Your task to perform on an android device: turn on notifications settings in the gmail app Image 0: 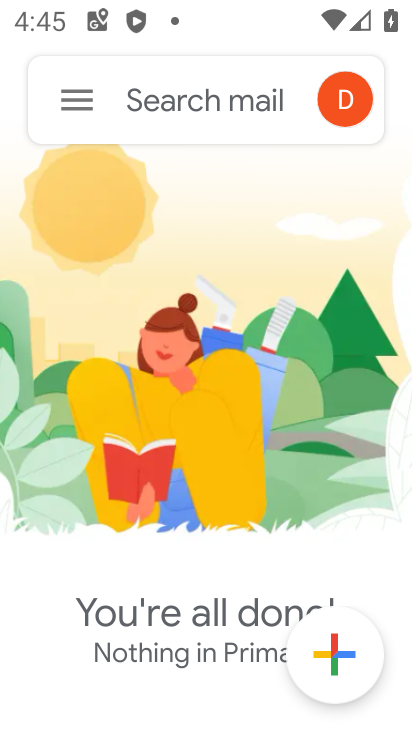
Step 0: press back button
Your task to perform on an android device: turn on notifications settings in the gmail app Image 1: 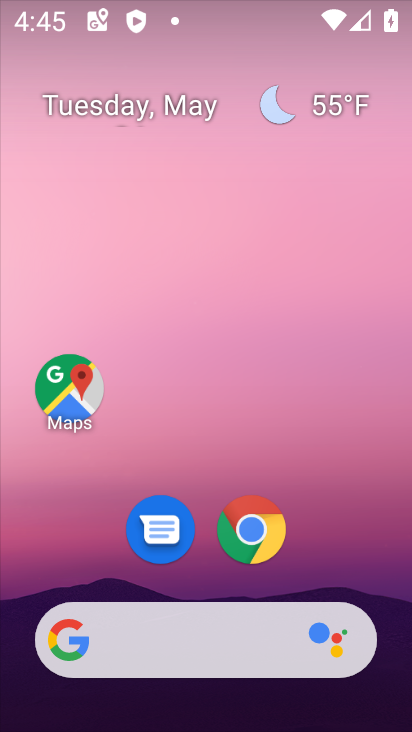
Step 1: drag from (233, 428) to (160, 0)
Your task to perform on an android device: turn on notifications settings in the gmail app Image 2: 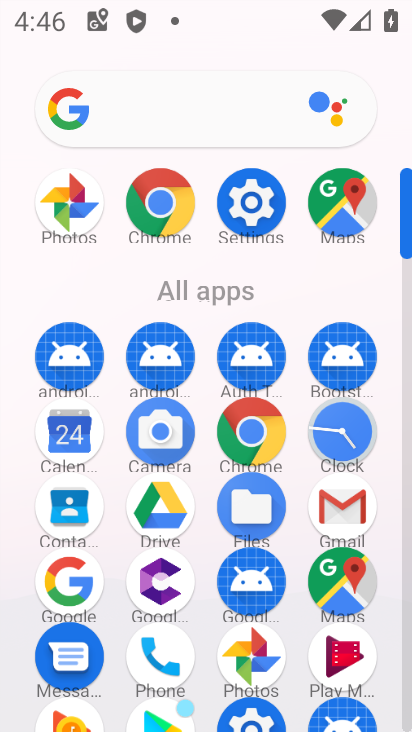
Step 2: click (339, 499)
Your task to perform on an android device: turn on notifications settings in the gmail app Image 3: 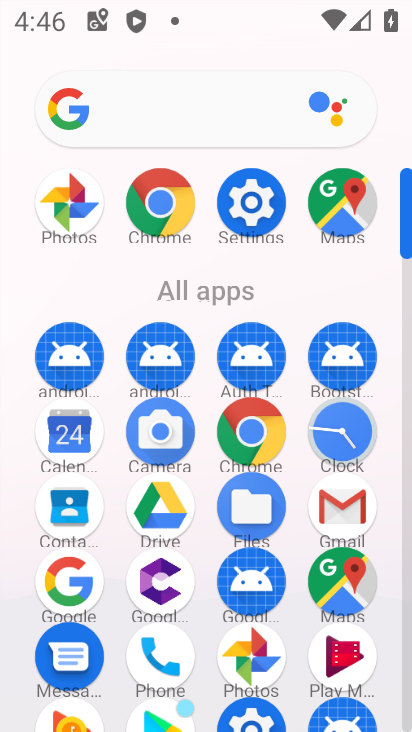
Step 3: click (337, 501)
Your task to perform on an android device: turn on notifications settings in the gmail app Image 4: 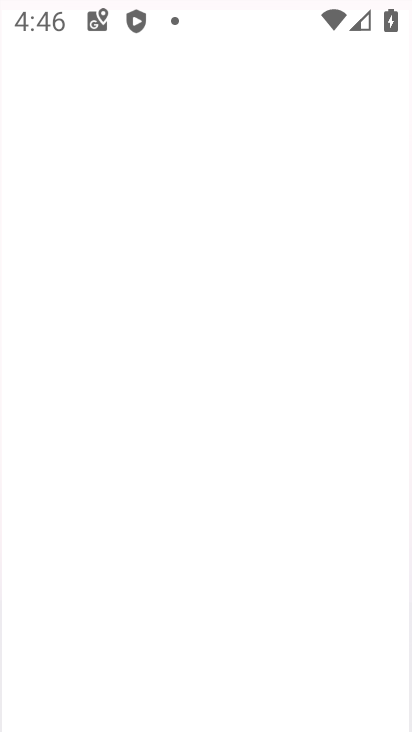
Step 4: click (338, 502)
Your task to perform on an android device: turn on notifications settings in the gmail app Image 5: 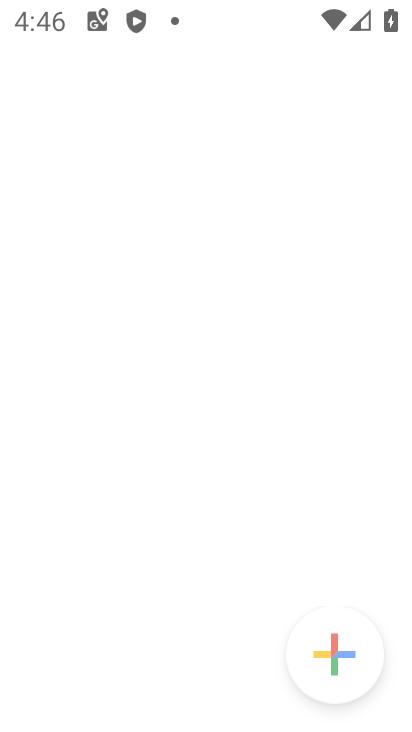
Step 5: click (338, 502)
Your task to perform on an android device: turn on notifications settings in the gmail app Image 6: 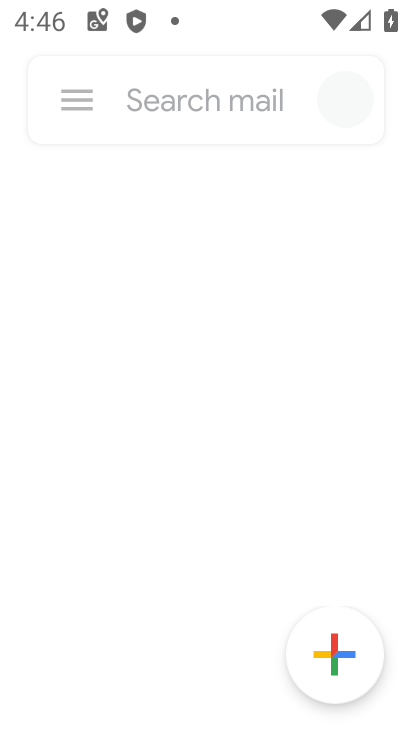
Step 6: click (340, 503)
Your task to perform on an android device: turn on notifications settings in the gmail app Image 7: 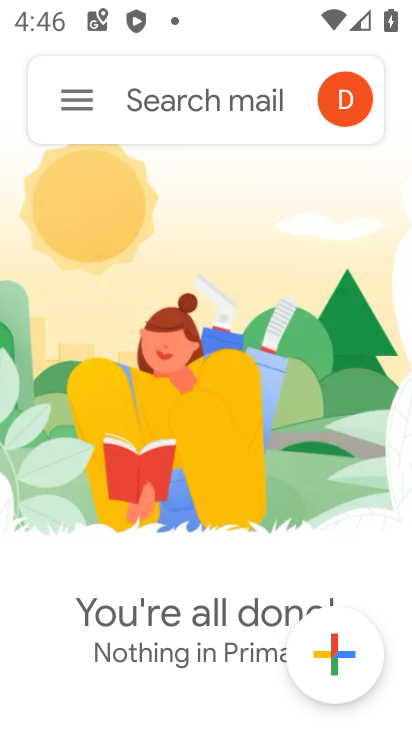
Step 7: click (64, 102)
Your task to perform on an android device: turn on notifications settings in the gmail app Image 8: 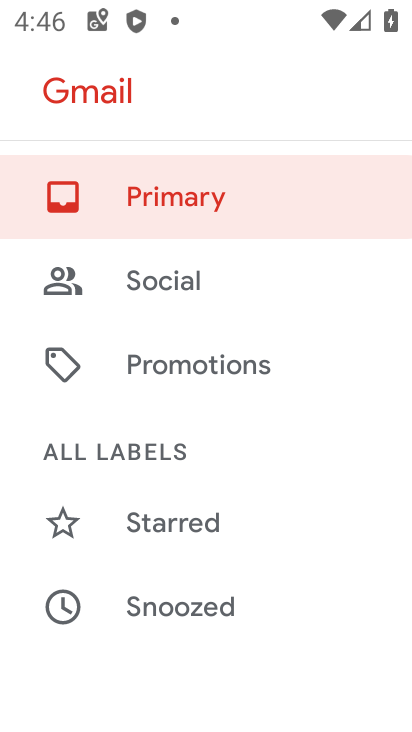
Step 8: drag from (181, 555) to (194, 235)
Your task to perform on an android device: turn on notifications settings in the gmail app Image 9: 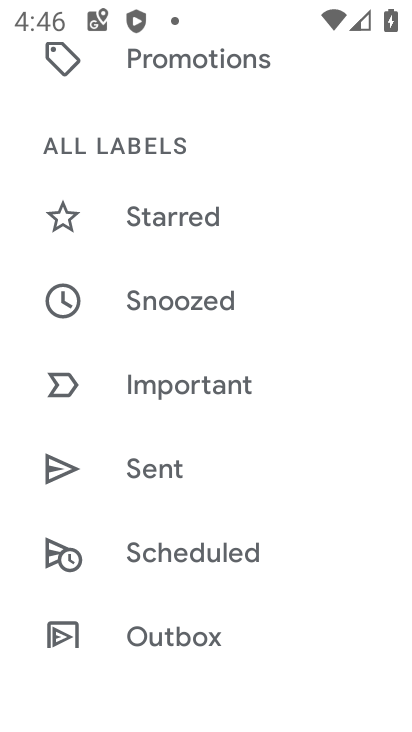
Step 9: drag from (208, 487) to (188, 118)
Your task to perform on an android device: turn on notifications settings in the gmail app Image 10: 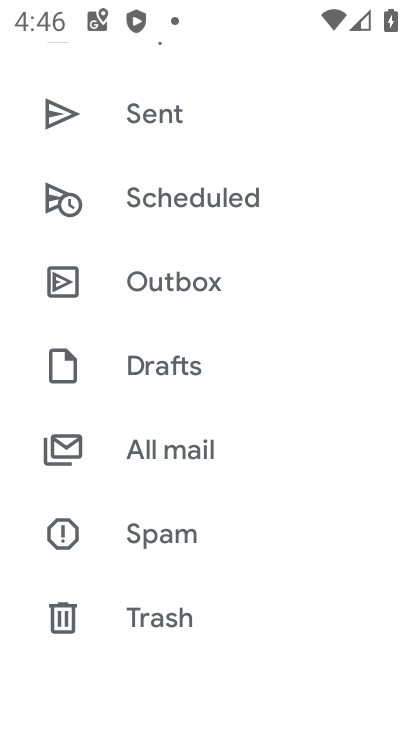
Step 10: click (155, 444)
Your task to perform on an android device: turn on notifications settings in the gmail app Image 11: 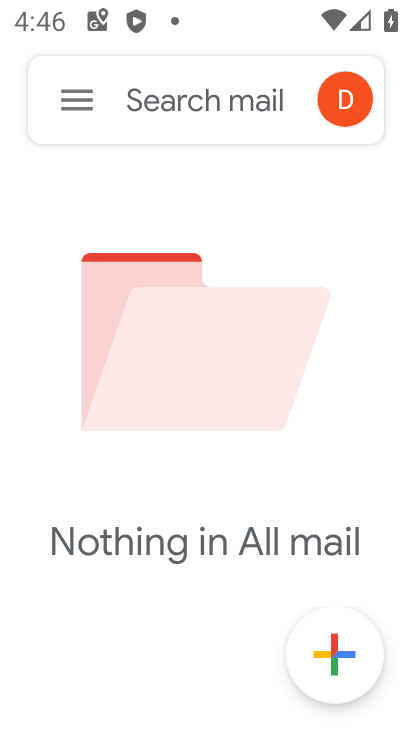
Step 11: press back button
Your task to perform on an android device: turn on notifications settings in the gmail app Image 12: 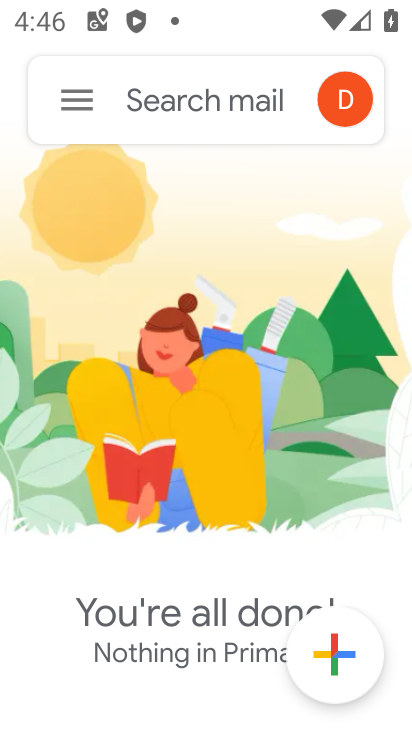
Step 12: click (73, 93)
Your task to perform on an android device: turn on notifications settings in the gmail app Image 13: 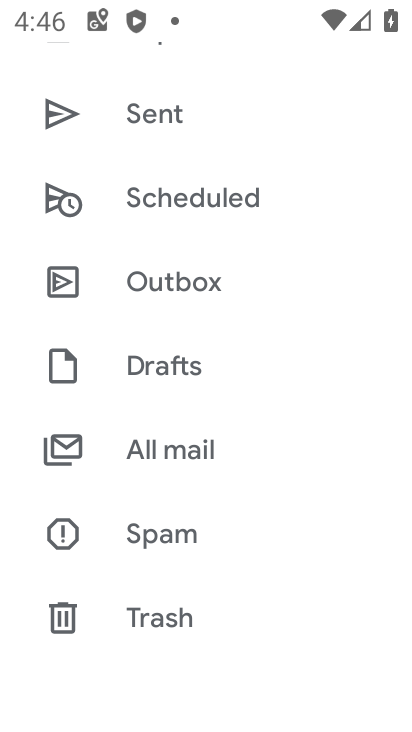
Step 13: drag from (160, 552) to (119, 127)
Your task to perform on an android device: turn on notifications settings in the gmail app Image 14: 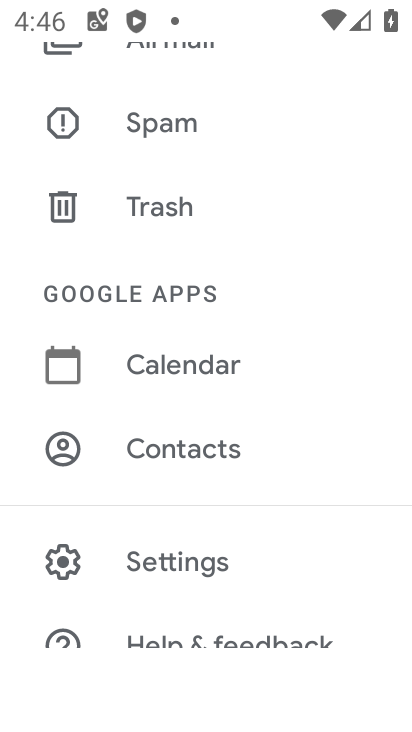
Step 14: drag from (187, 479) to (188, 0)
Your task to perform on an android device: turn on notifications settings in the gmail app Image 15: 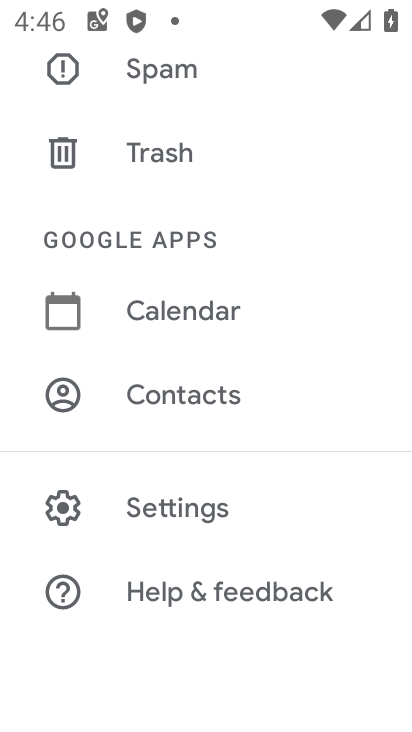
Step 15: click (172, 510)
Your task to perform on an android device: turn on notifications settings in the gmail app Image 16: 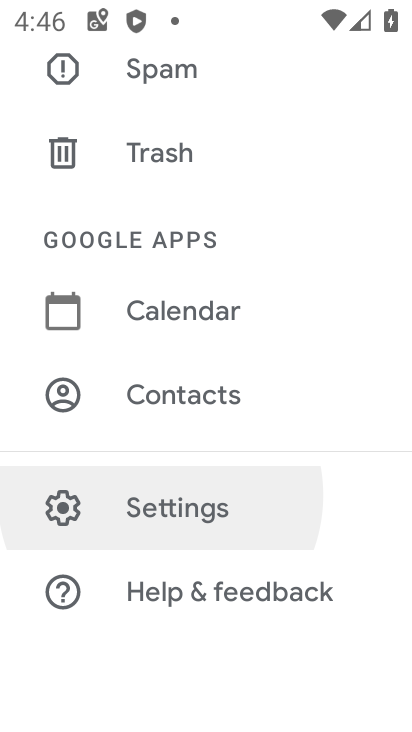
Step 16: click (172, 509)
Your task to perform on an android device: turn on notifications settings in the gmail app Image 17: 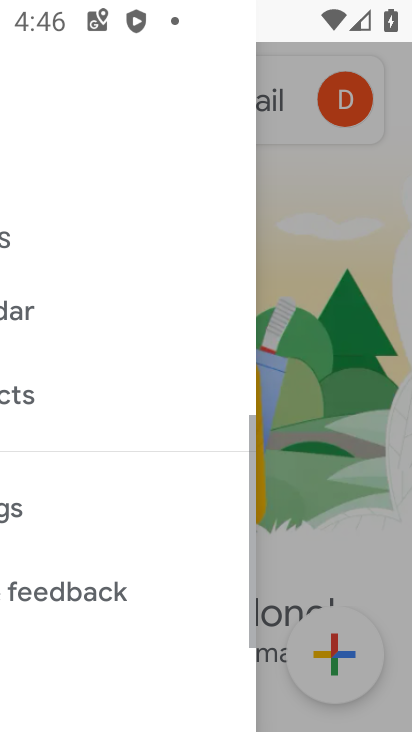
Step 17: click (171, 508)
Your task to perform on an android device: turn on notifications settings in the gmail app Image 18: 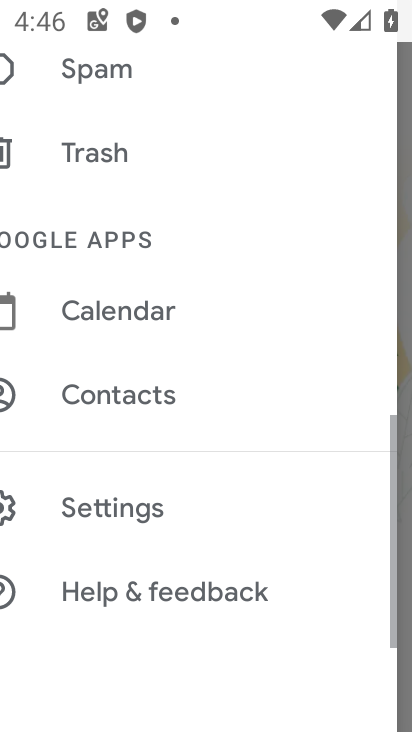
Step 18: click (171, 508)
Your task to perform on an android device: turn on notifications settings in the gmail app Image 19: 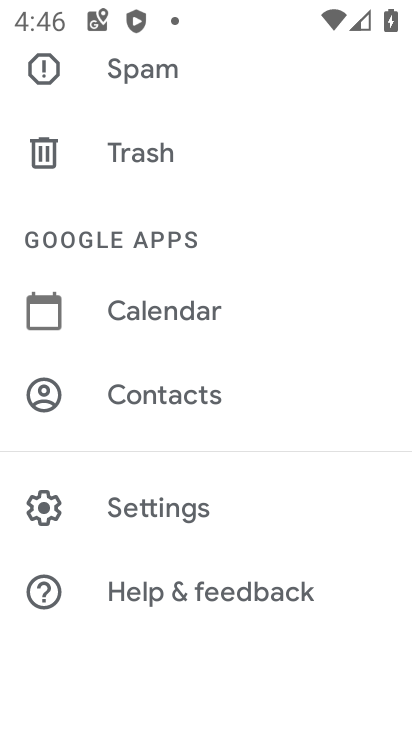
Step 19: click (168, 511)
Your task to perform on an android device: turn on notifications settings in the gmail app Image 20: 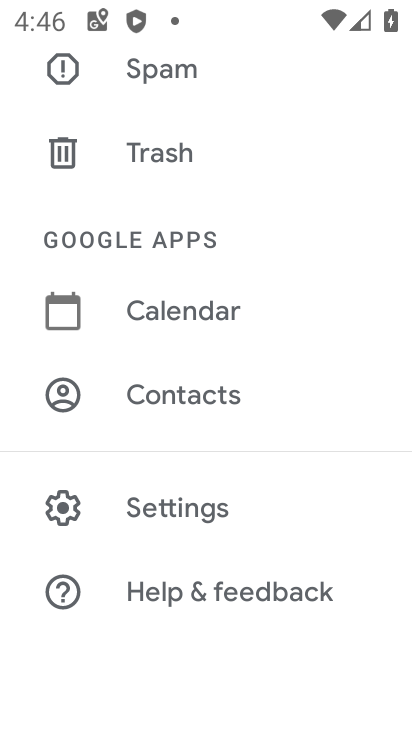
Step 20: click (167, 514)
Your task to perform on an android device: turn on notifications settings in the gmail app Image 21: 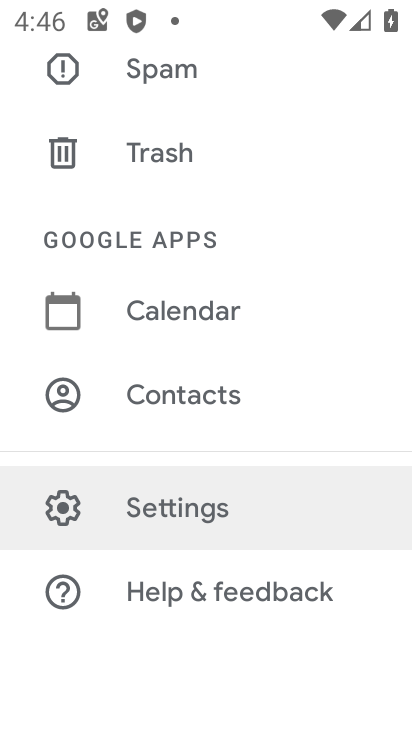
Step 21: click (171, 514)
Your task to perform on an android device: turn on notifications settings in the gmail app Image 22: 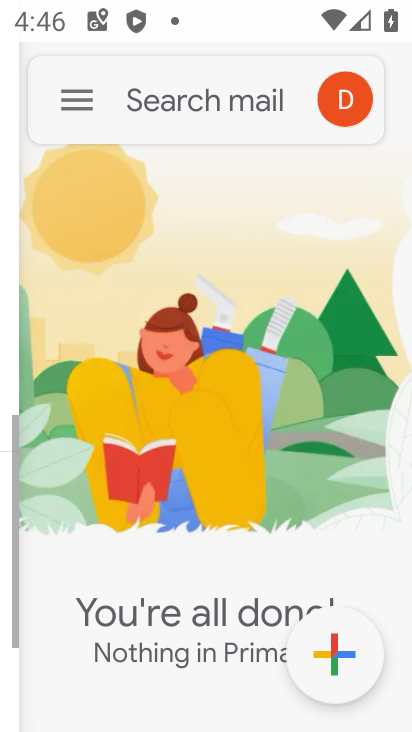
Step 22: click (171, 511)
Your task to perform on an android device: turn on notifications settings in the gmail app Image 23: 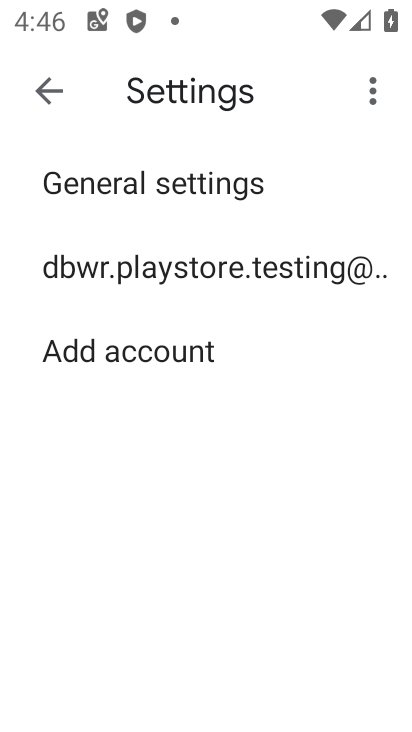
Step 23: click (161, 267)
Your task to perform on an android device: turn on notifications settings in the gmail app Image 24: 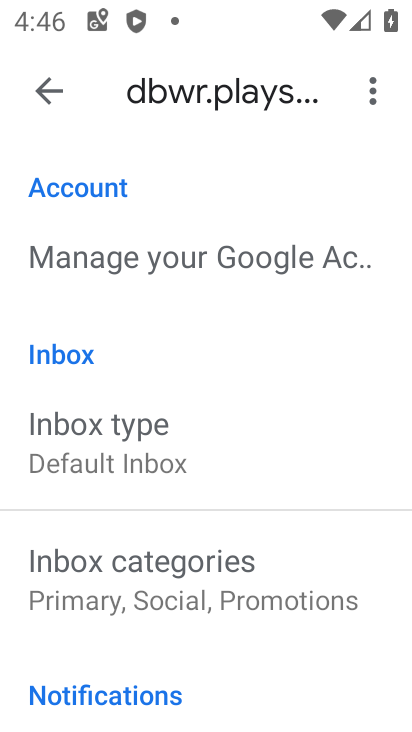
Step 24: click (94, 450)
Your task to perform on an android device: turn on notifications settings in the gmail app Image 25: 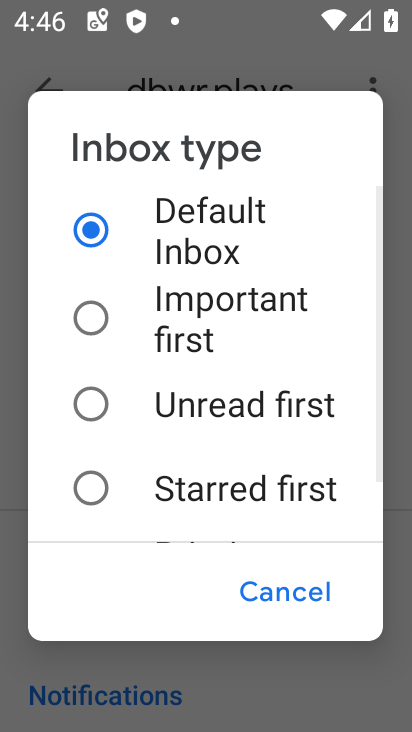
Step 25: click (289, 582)
Your task to perform on an android device: turn on notifications settings in the gmail app Image 26: 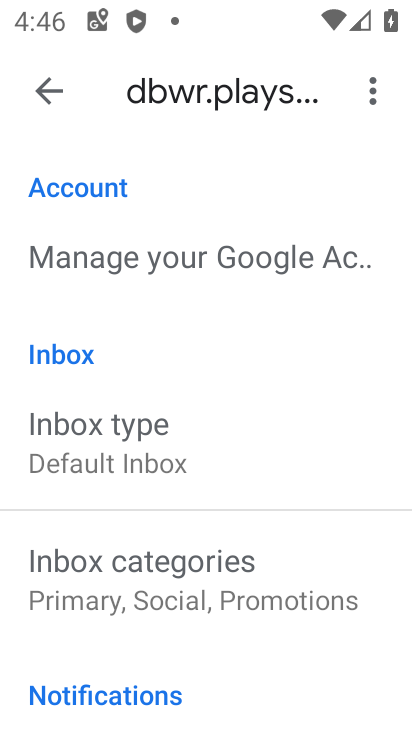
Step 26: drag from (130, 502) to (6, 326)
Your task to perform on an android device: turn on notifications settings in the gmail app Image 27: 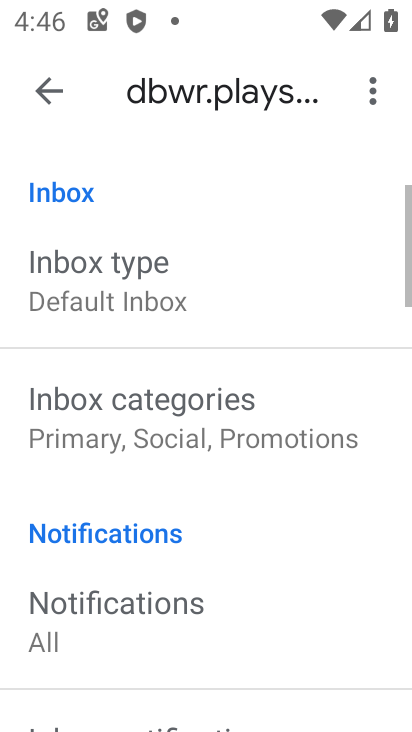
Step 27: drag from (96, 538) to (50, 68)
Your task to perform on an android device: turn on notifications settings in the gmail app Image 28: 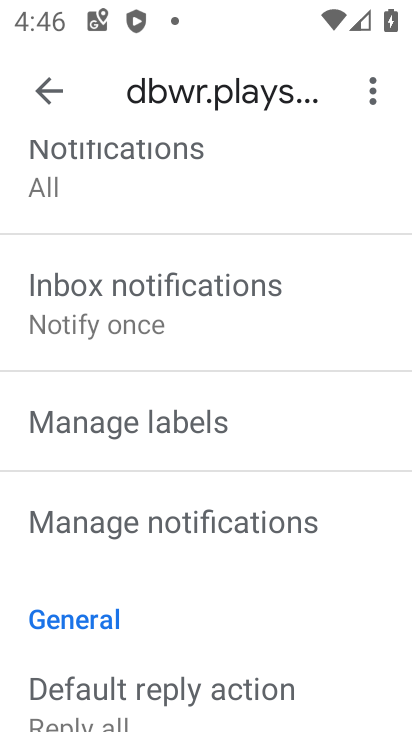
Step 28: click (87, 150)
Your task to perform on an android device: turn on notifications settings in the gmail app Image 29: 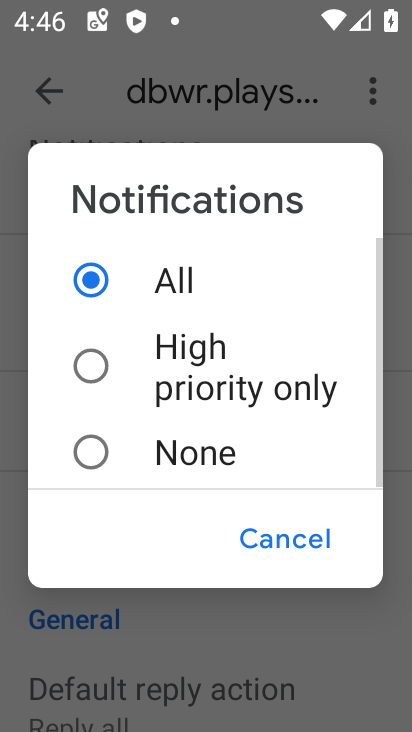
Step 29: task complete